Your task to perform on an android device: Check the news Image 0: 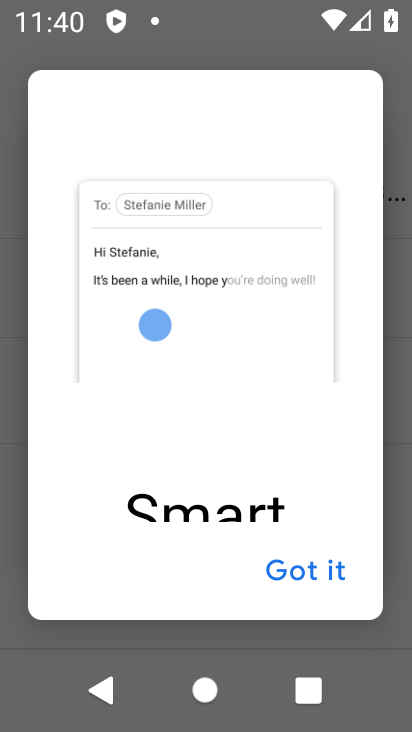
Step 0: press home button
Your task to perform on an android device: Check the news Image 1: 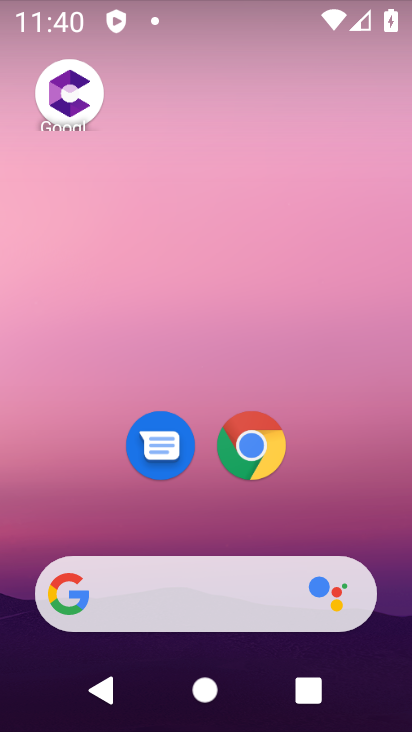
Step 1: task complete